Your task to perform on an android device: open chrome privacy settings Image 0: 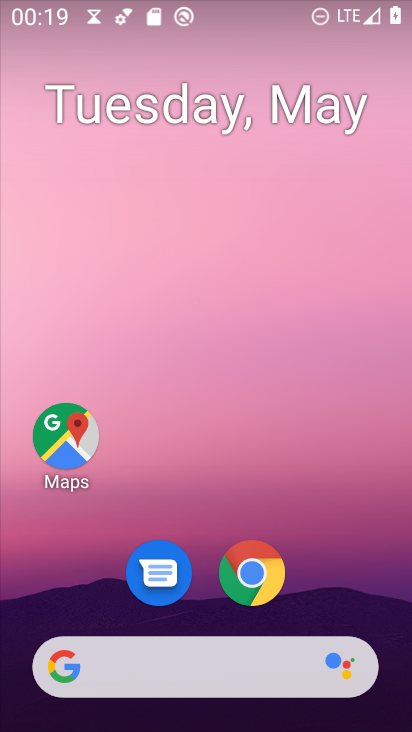
Step 0: click (263, 574)
Your task to perform on an android device: open chrome privacy settings Image 1: 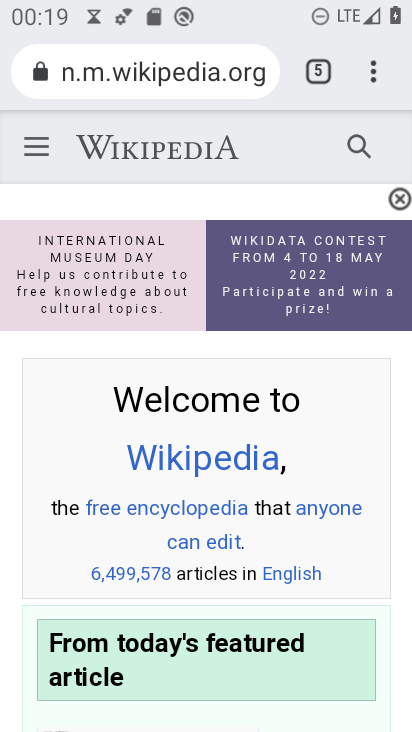
Step 1: click (368, 75)
Your task to perform on an android device: open chrome privacy settings Image 2: 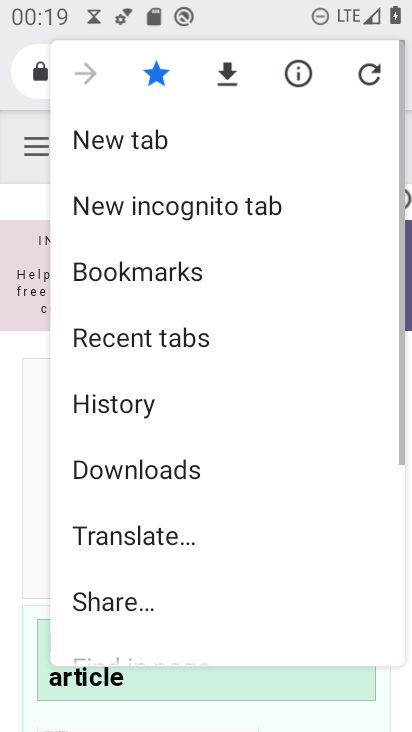
Step 2: drag from (246, 610) to (186, 134)
Your task to perform on an android device: open chrome privacy settings Image 3: 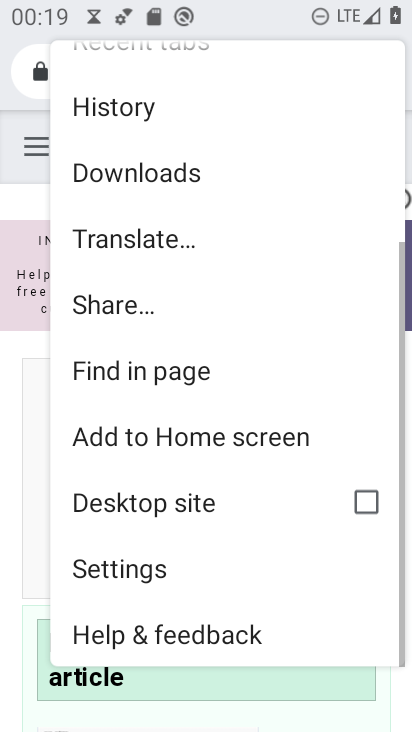
Step 3: click (172, 559)
Your task to perform on an android device: open chrome privacy settings Image 4: 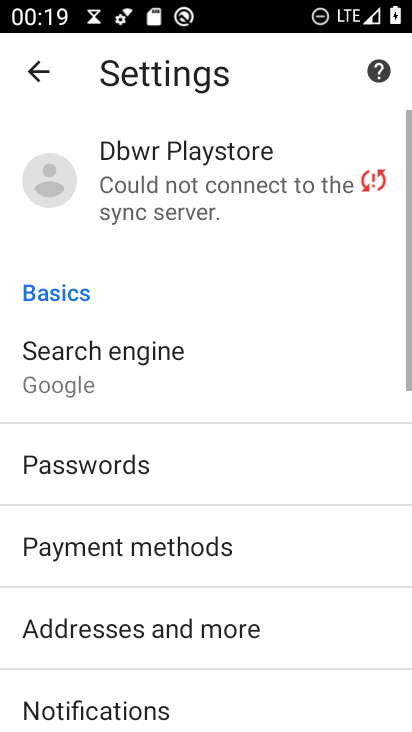
Step 4: drag from (162, 604) to (119, 147)
Your task to perform on an android device: open chrome privacy settings Image 5: 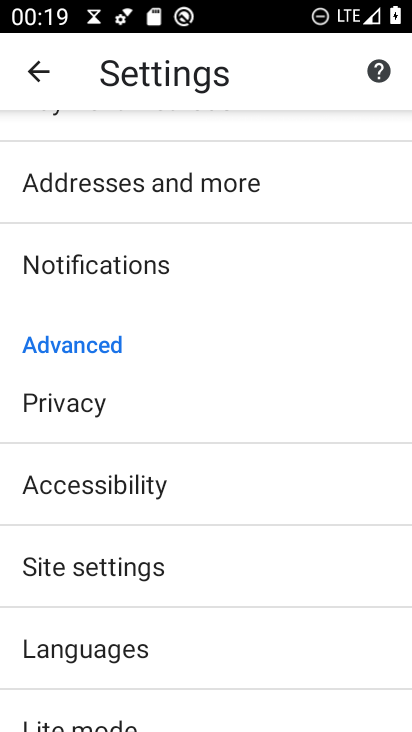
Step 5: click (80, 408)
Your task to perform on an android device: open chrome privacy settings Image 6: 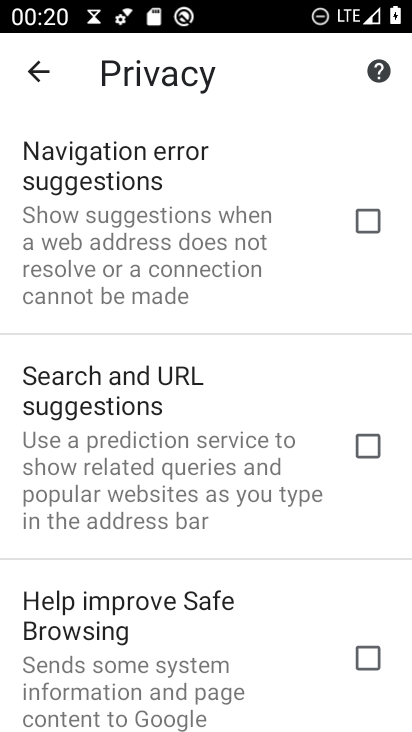
Step 6: task complete